Your task to perform on an android device: Open privacy settings Image 0: 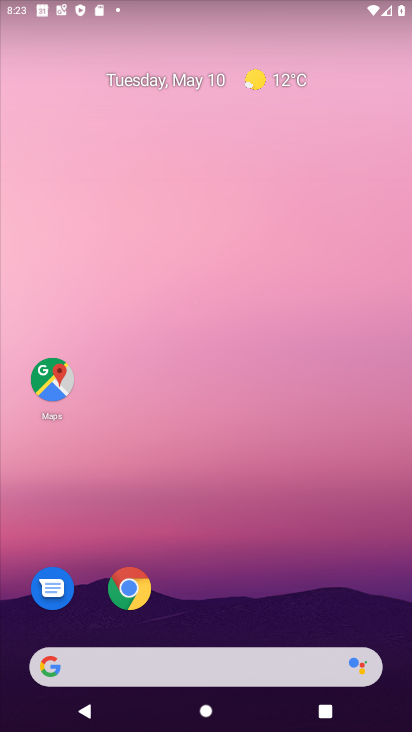
Step 0: click (131, 586)
Your task to perform on an android device: Open privacy settings Image 1: 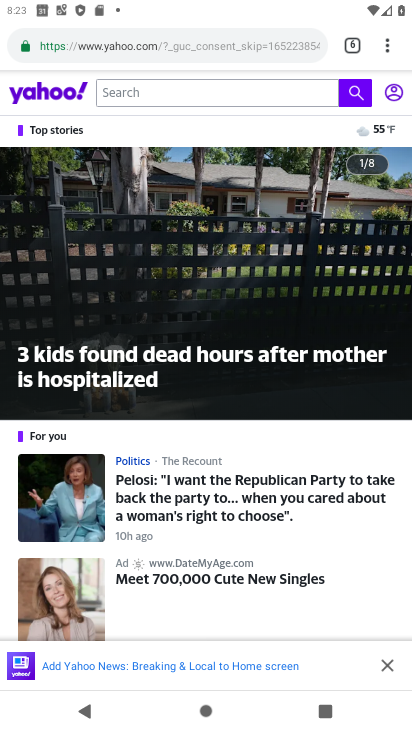
Step 1: click (379, 40)
Your task to perform on an android device: Open privacy settings Image 2: 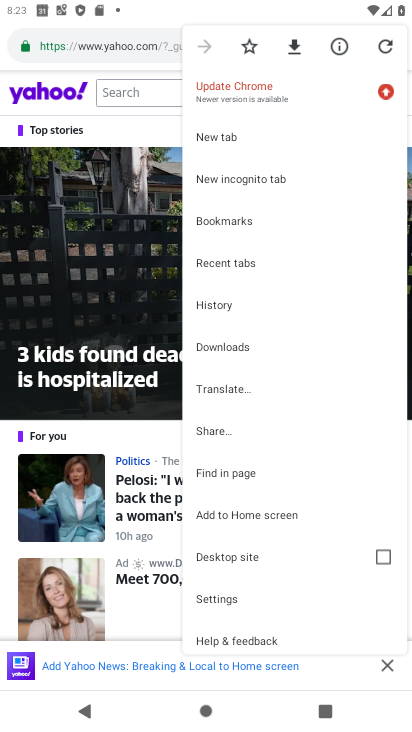
Step 2: click (218, 600)
Your task to perform on an android device: Open privacy settings Image 3: 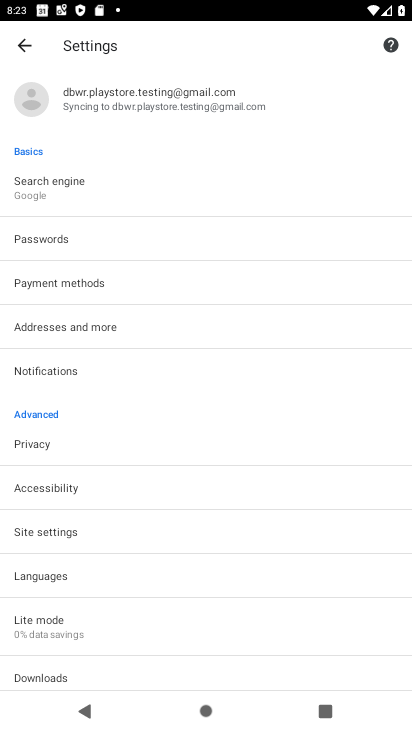
Step 3: drag from (100, 617) to (127, 401)
Your task to perform on an android device: Open privacy settings Image 4: 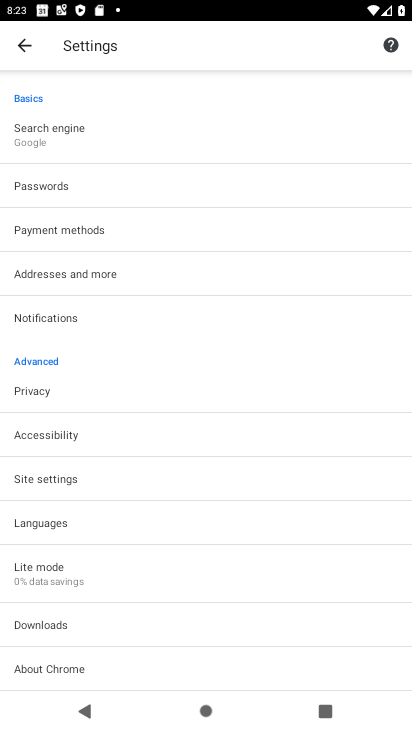
Step 4: click (60, 388)
Your task to perform on an android device: Open privacy settings Image 5: 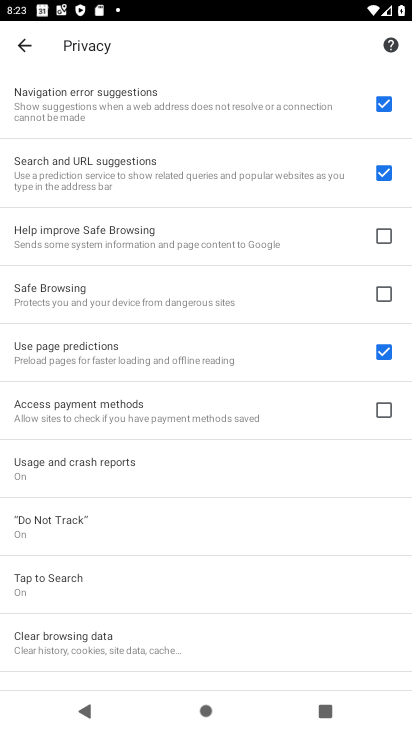
Step 5: task complete